Your task to perform on an android device: check android version Image 0: 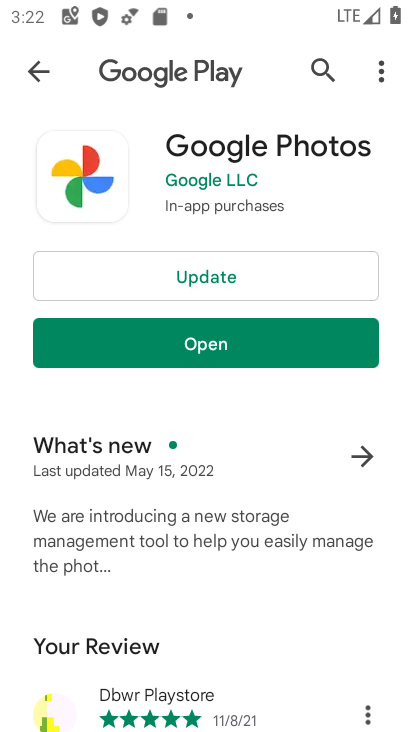
Step 0: press home button
Your task to perform on an android device: check android version Image 1: 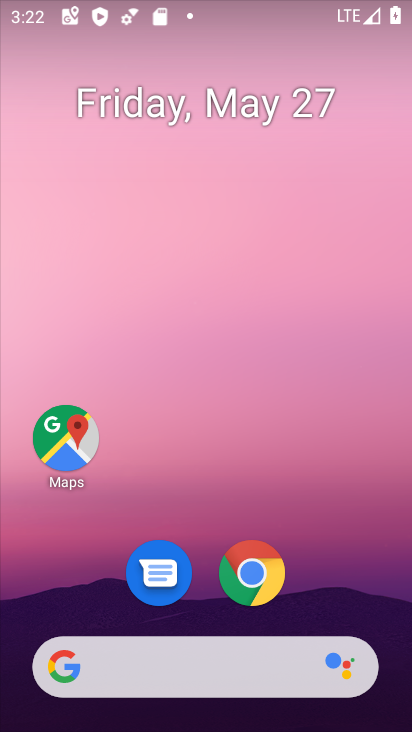
Step 1: drag from (214, 463) to (230, 13)
Your task to perform on an android device: check android version Image 2: 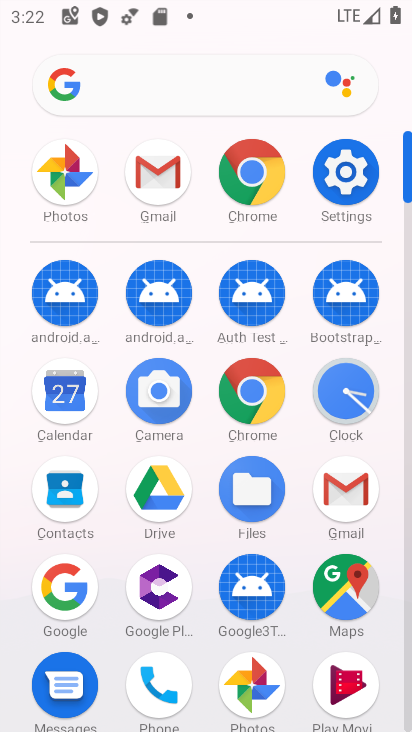
Step 2: click (345, 187)
Your task to perform on an android device: check android version Image 3: 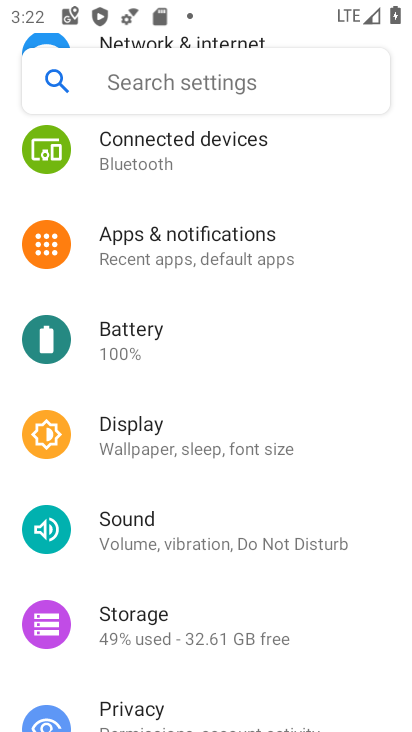
Step 3: drag from (240, 618) to (294, 15)
Your task to perform on an android device: check android version Image 4: 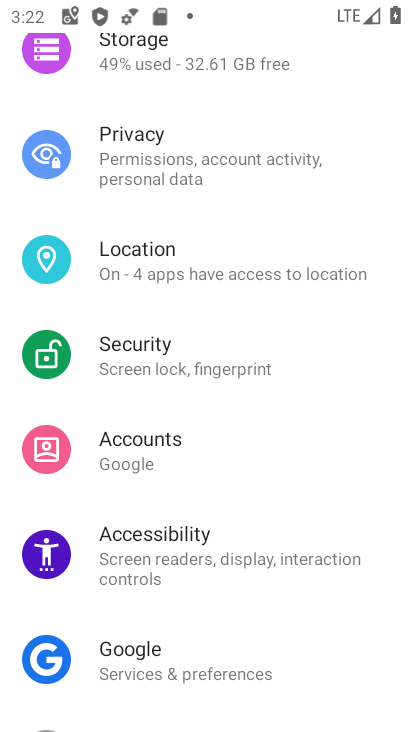
Step 4: drag from (241, 548) to (297, 161)
Your task to perform on an android device: check android version Image 5: 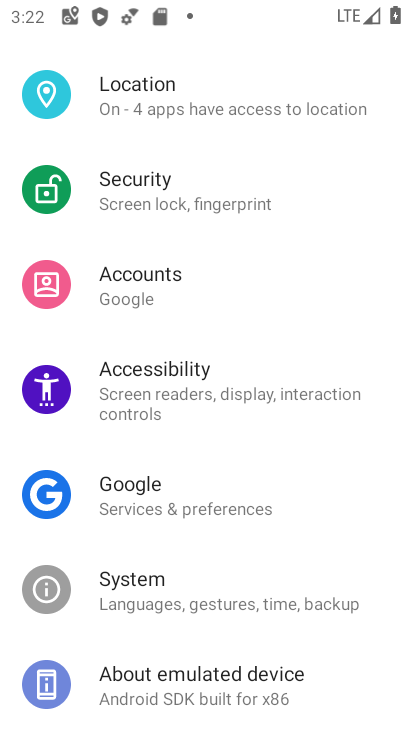
Step 5: click (187, 678)
Your task to perform on an android device: check android version Image 6: 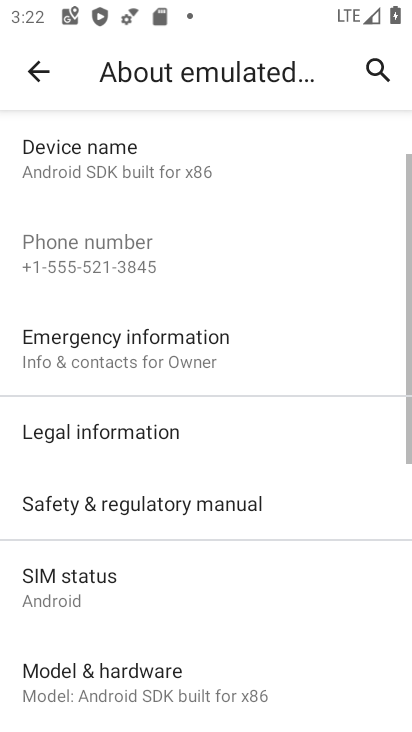
Step 6: drag from (233, 536) to (286, 177)
Your task to perform on an android device: check android version Image 7: 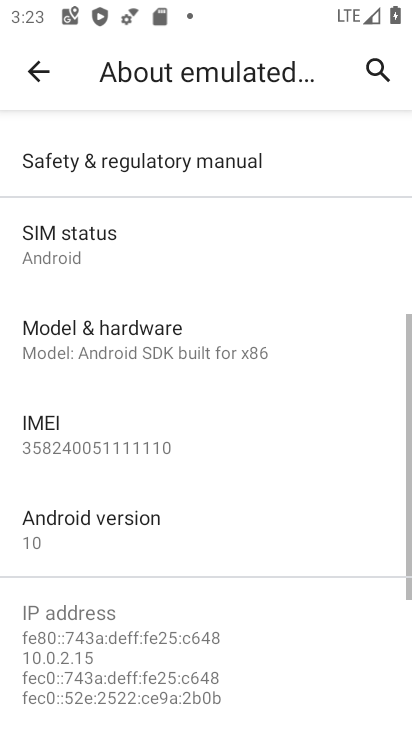
Step 7: click (142, 541)
Your task to perform on an android device: check android version Image 8: 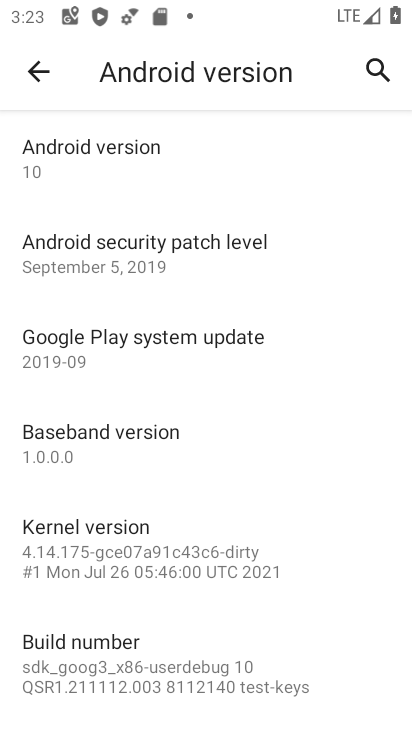
Step 8: task complete